Your task to perform on an android device: What's on my calendar tomorrow? Image 0: 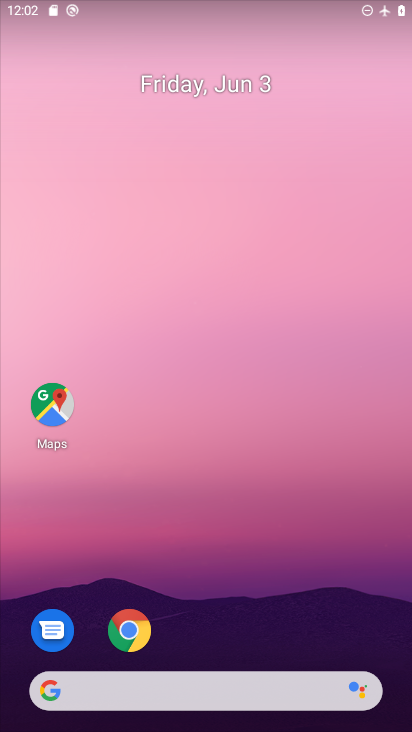
Step 0: drag from (221, 491) to (161, 215)
Your task to perform on an android device: What's on my calendar tomorrow? Image 1: 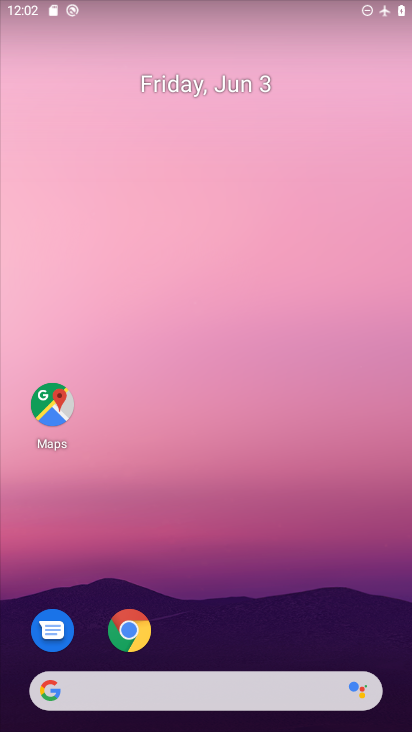
Step 1: drag from (244, 644) to (183, 234)
Your task to perform on an android device: What's on my calendar tomorrow? Image 2: 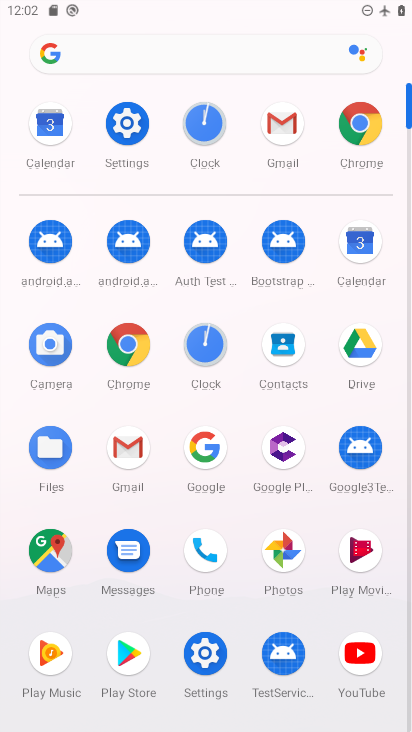
Step 2: click (356, 252)
Your task to perform on an android device: What's on my calendar tomorrow? Image 3: 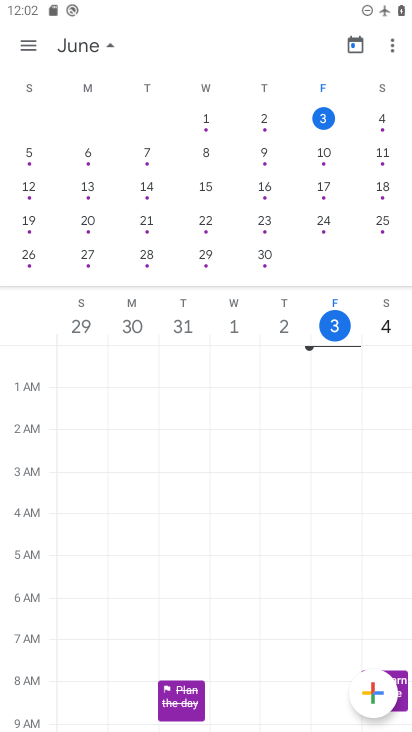
Step 3: click (13, 41)
Your task to perform on an android device: What's on my calendar tomorrow? Image 4: 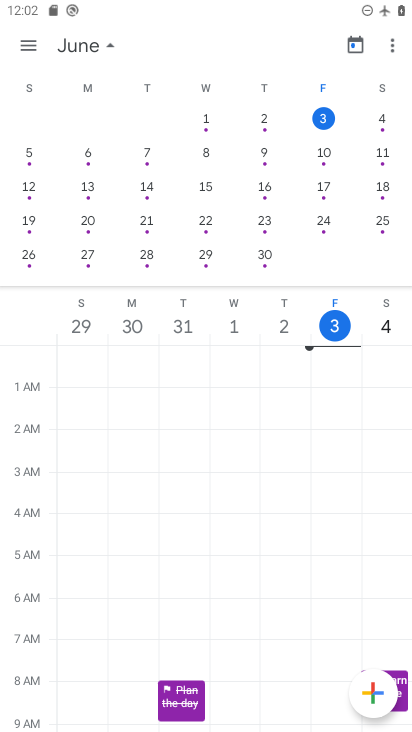
Step 4: click (28, 49)
Your task to perform on an android device: What's on my calendar tomorrow? Image 5: 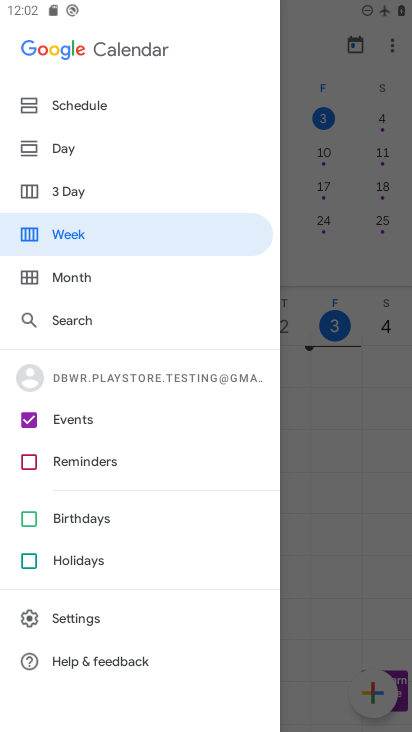
Step 5: click (80, 102)
Your task to perform on an android device: What's on my calendar tomorrow? Image 6: 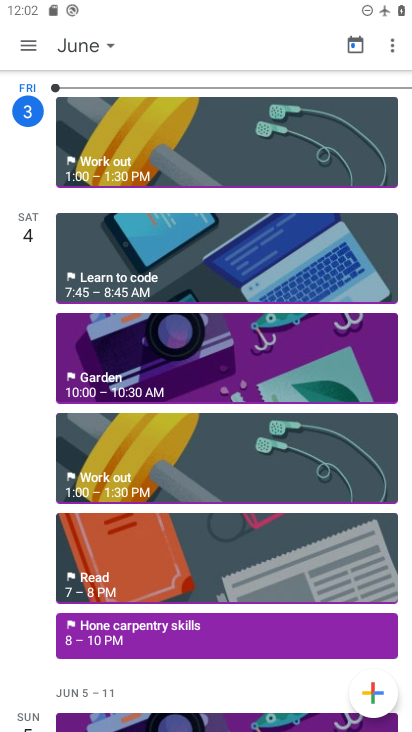
Step 6: task complete